Your task to perform on an android device: refresh tabs in the chrome app Image 0: 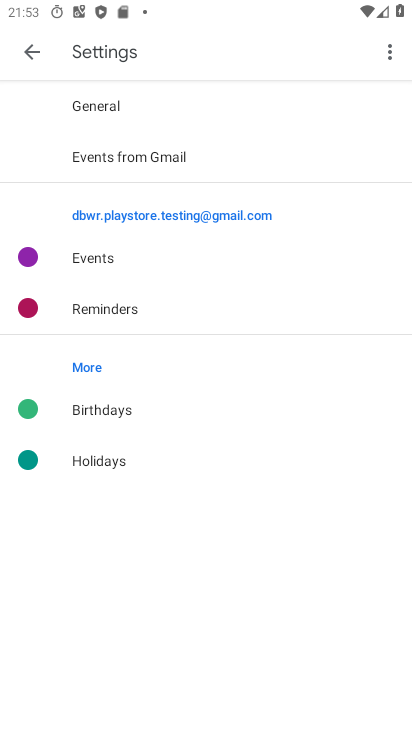
Step 0: press home button
Your task to perform on an android device: refresh tabs in the chrome app Image 1: 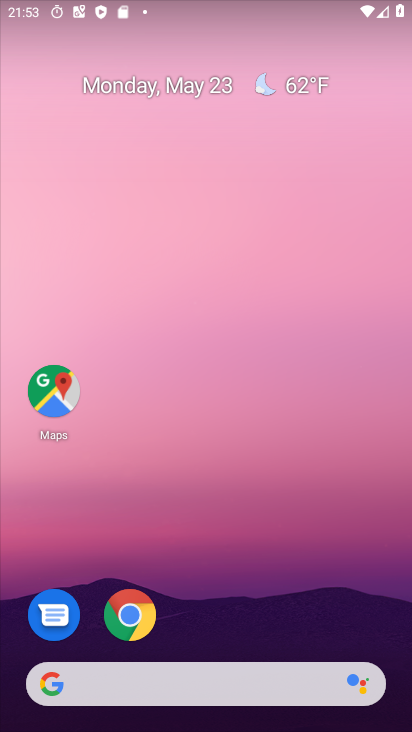
Step 1: click (136, 614)
Your task to perform on an android device: refresh tabs in the chrome app Image 2: 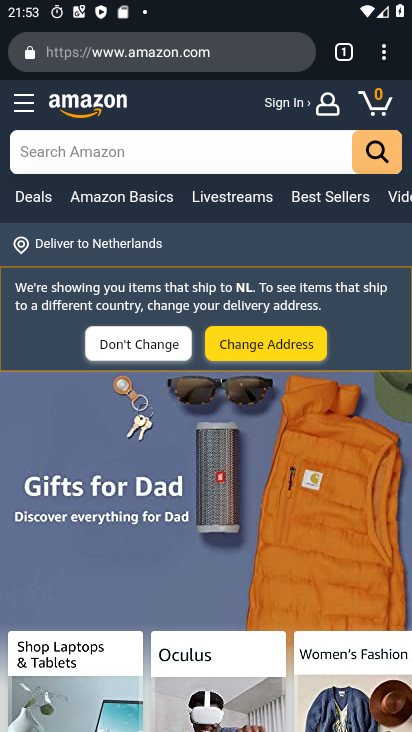
Step 2: click (377, 50)
Your task to perform on an android device: refresh tabs in the chrome app Image 3: 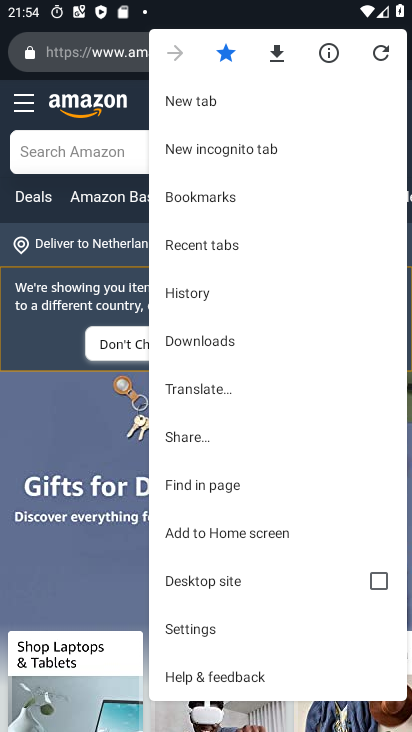
Step 3: click (378, 55)
Your task to perform on an android device: refresh tabs in the chrome app Image 4: 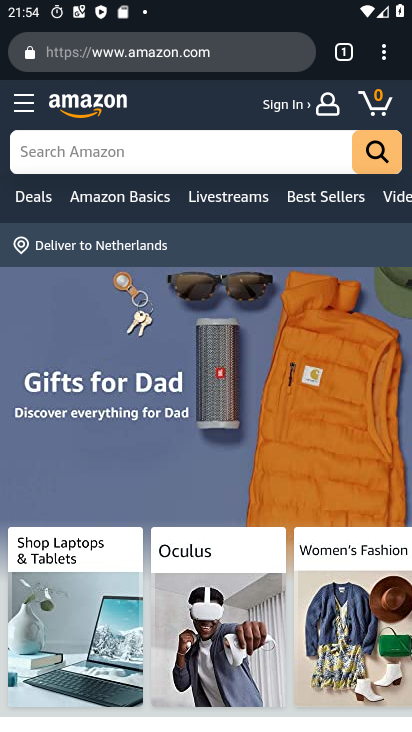
Step 4: task complete